Your task to perform on an android device: When is my next appointment? Image 0: 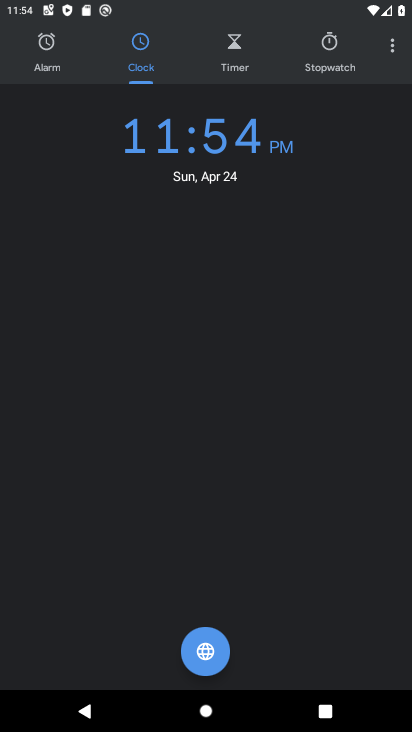
Step 0: press back button
Your task to perform on an android device: When is my next appointment? Image 1: 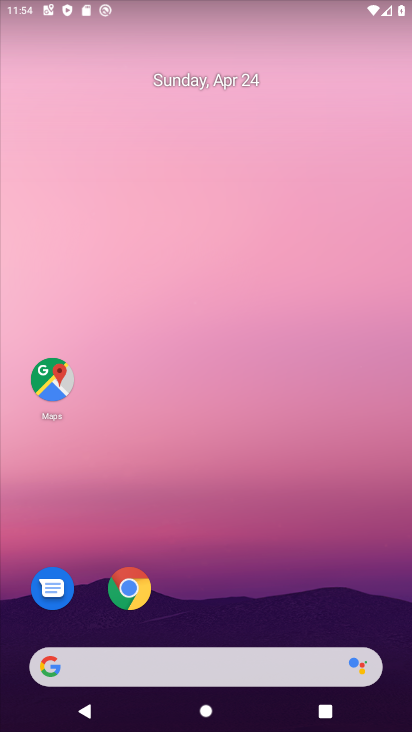
Step 1: drag from (251, 621) to (377, 58)
Your task to perform on an android device: When is my next appointment? Image 2: 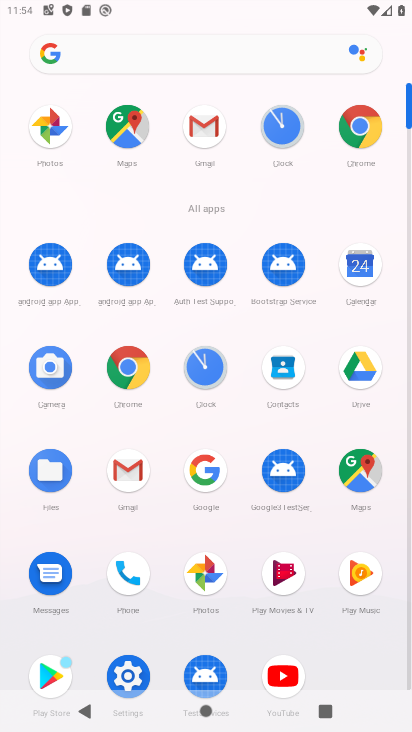
Step 2: click (362, 275)
Your task to perform on an android device: When is my next appointment? Image 3: 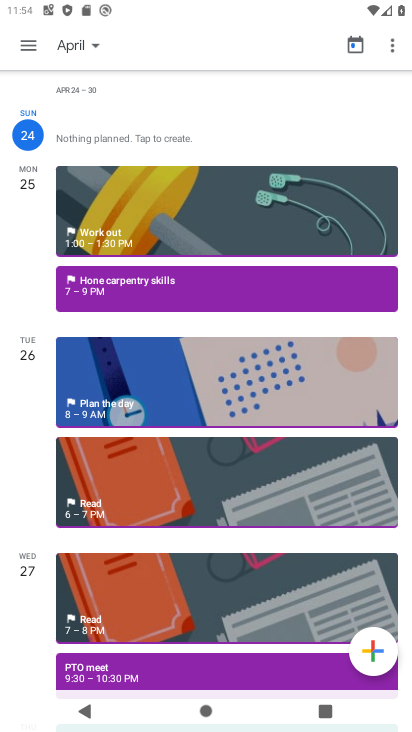
Step 3: click (23, 35)
Your task to perform on an android device: When is my next appointment? Image 4: 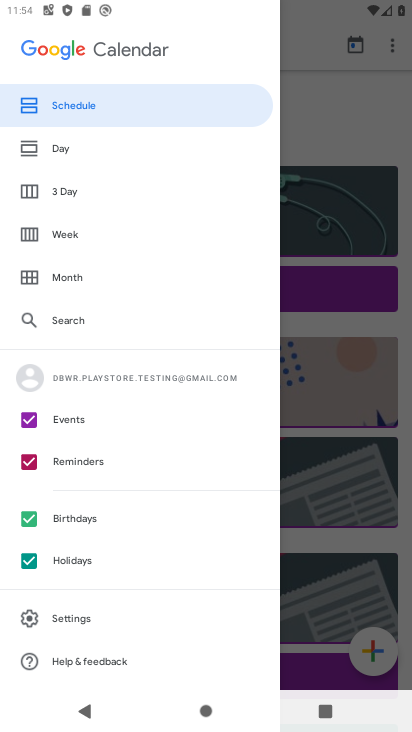
Step 4: click (92, 468)
Your task to perform on an android device: When is my next appointment? Image 5: 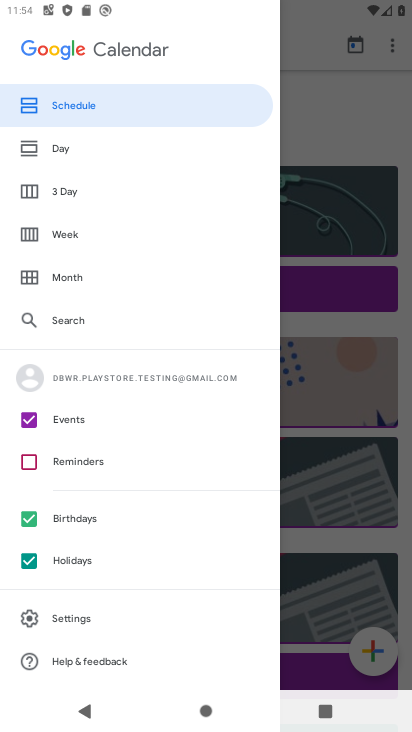
Step 5: click (90, 534)
Your task to perform on an android device: When is my next appointment? Image 6: 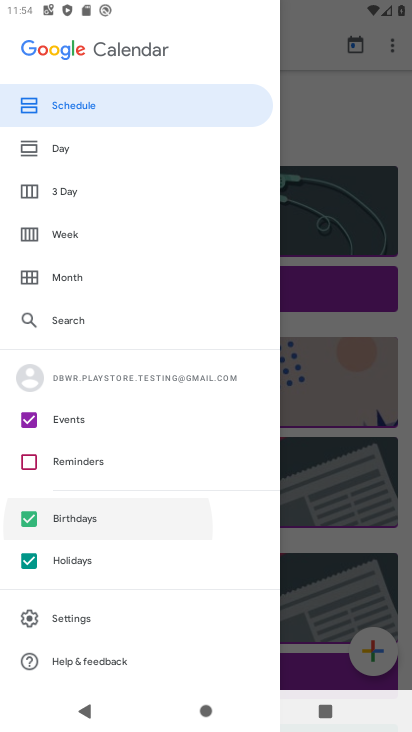
Step 6: click (87, 563)
Your task to perform on an android device: When is my next appointment? Image 7: 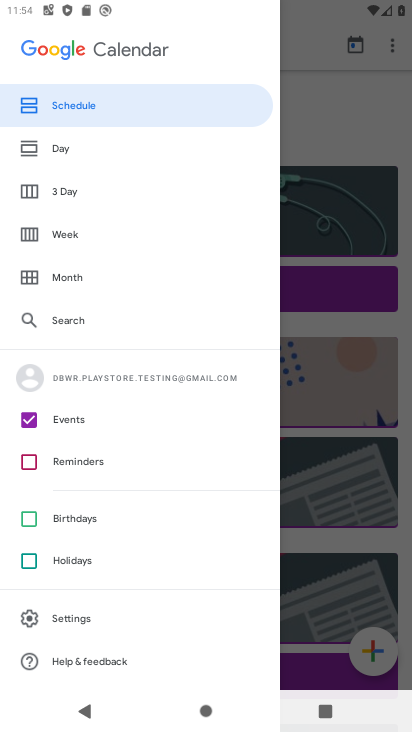
Step 7: task complete